Your task to perform on an android device: Open calendar and show me the second week of next month Image 0: 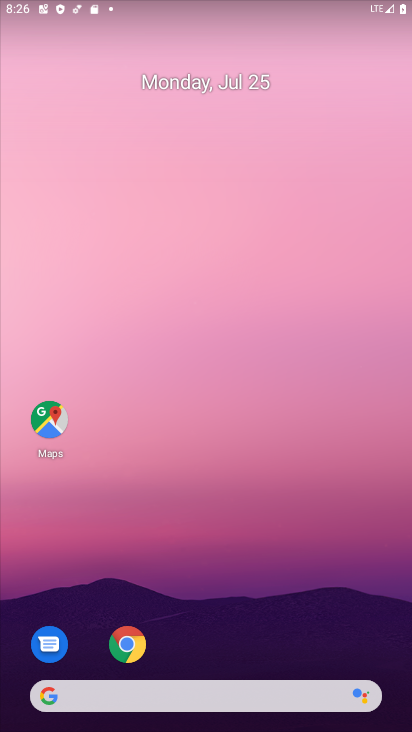
Step 0: drag from (288, 597) to (371, 41)
Your task to perform on an android device: Open calendar and show me the second week of next month Image 1: 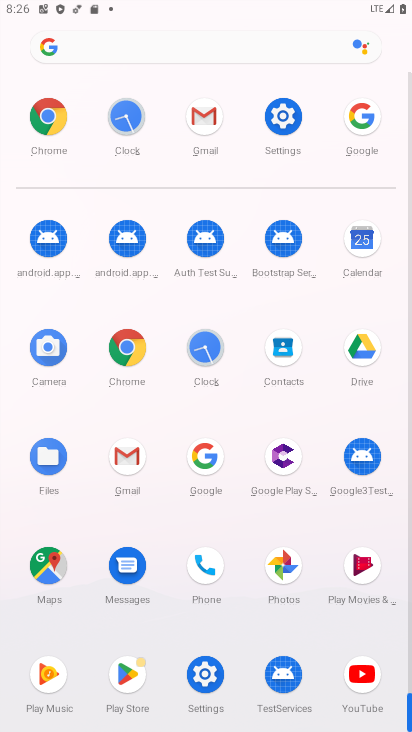
Step 1: click (368, 252)
Your task to perform on an android device: Open calendar and show me the second week of next month Image 2: 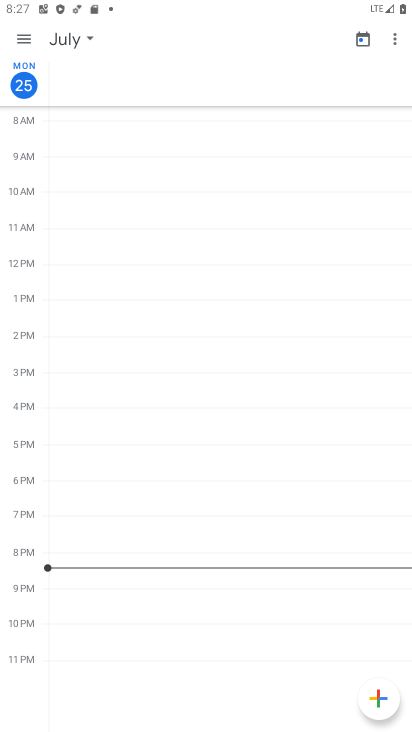
Step 2: click (84, 36)
Your task to perform on an android device: Open calendar and show me the second week of next month Image 3: 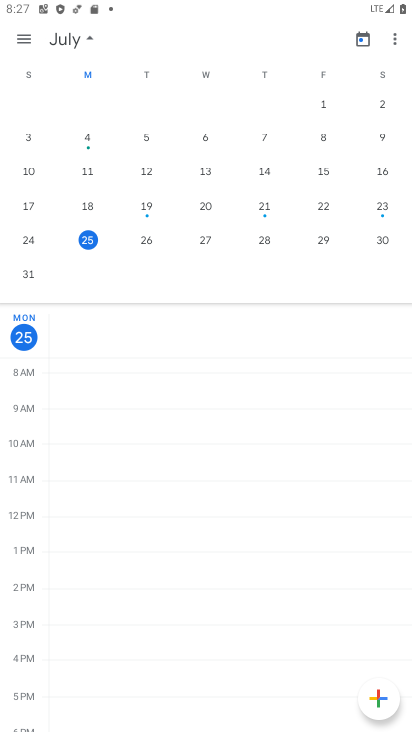
Step 3: drag from (276, 191) to (6, 193)
Your task to perform on an android device: Open calendar and show me the second week of next month Image 4: 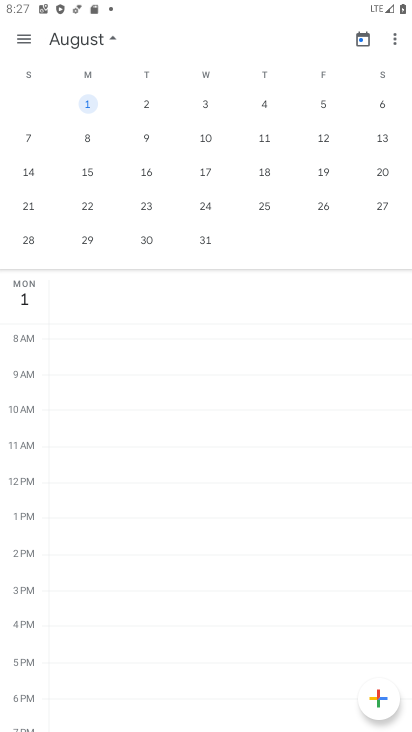
Step 4: click (29, 134)
Your task to perform on an android device: Open calendar and show me the second week of next month Image 5: 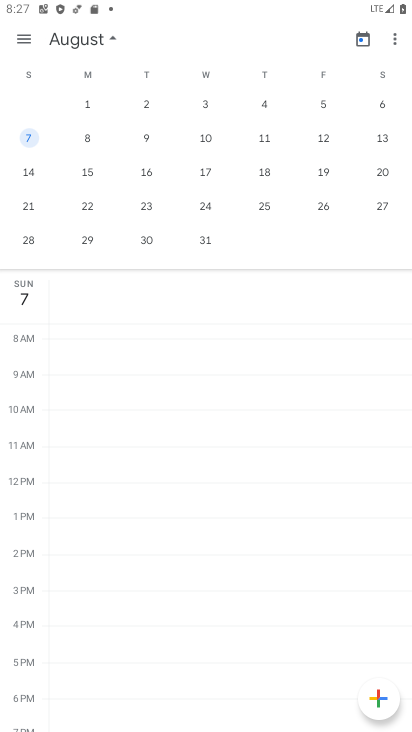
Step 5: click (107, 44)
Your task to perform on an android device: Open calendar and show me the second week of next month Image 6: 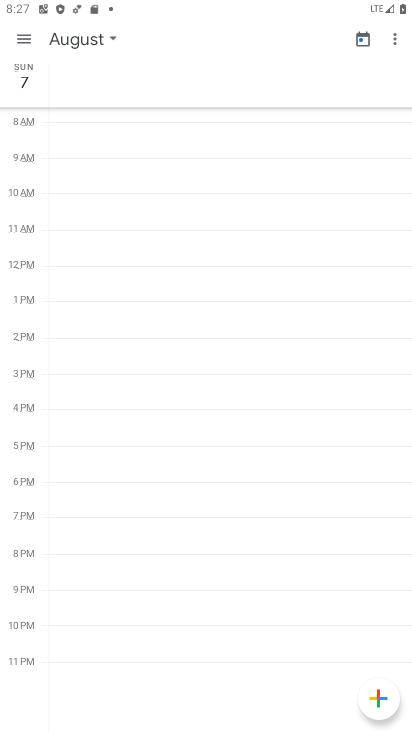
Step 6: click (23, 35)
Your task to perform on an android device: Open calendar and show me the second week of next month Image 7: 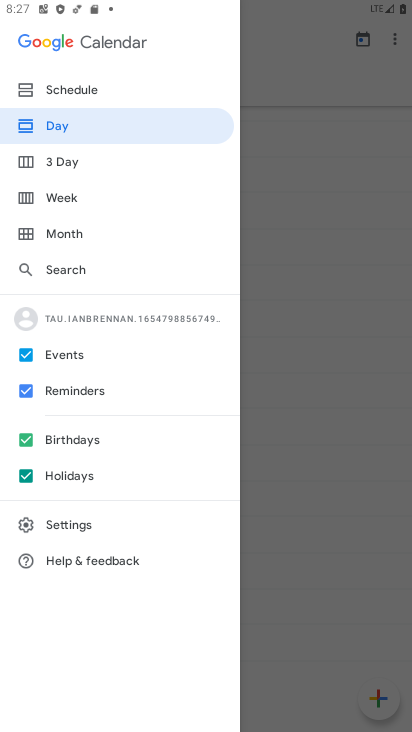
Step 7: click (78, 197)
Your task to perform on an android device: Open calendar and show me the second week of next month Image 8: 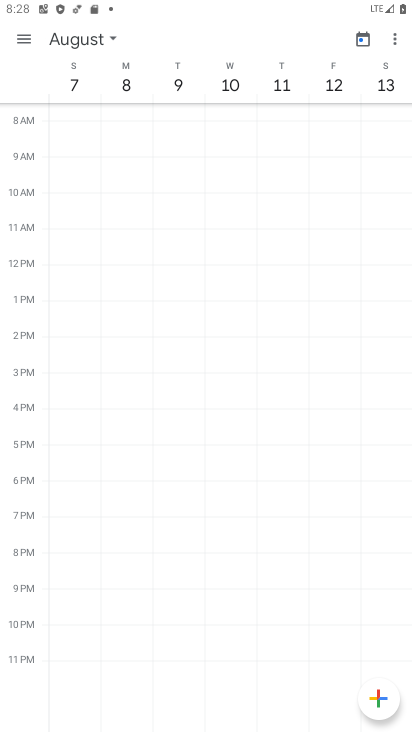
Step 8: task complete